Your task to perform on an android device: Turn off the flashlight Image 0: 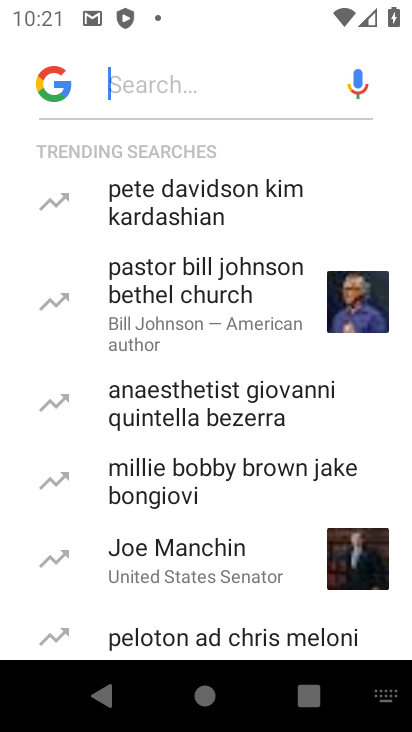
Step 0: press back button
Your task to perform on an android device: Turn off the flashlight Image 1: 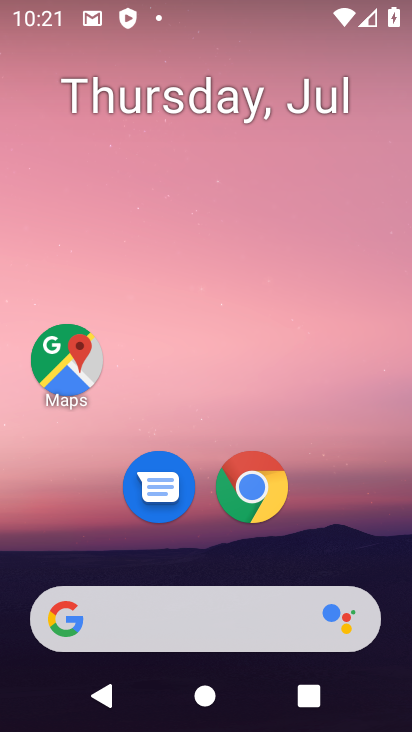
Step 1: drag from (221, 580) to (322, 16)
Your task to perform on an android device: Turn off the flashlight Image 2: 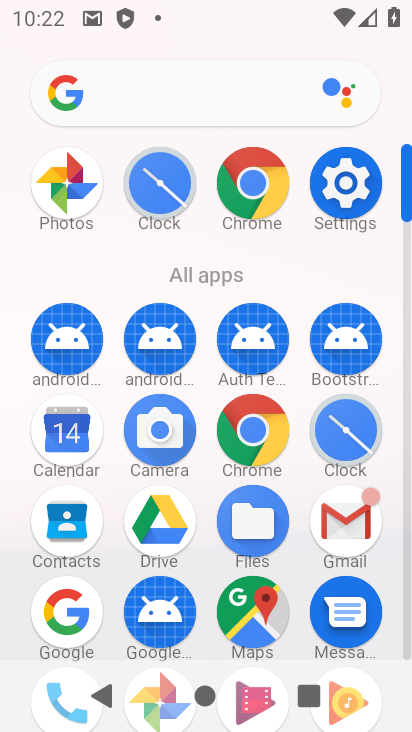
Step 2: click (351, 195)
Your task to perform on an android device: Turn off the flashlight Image 3: 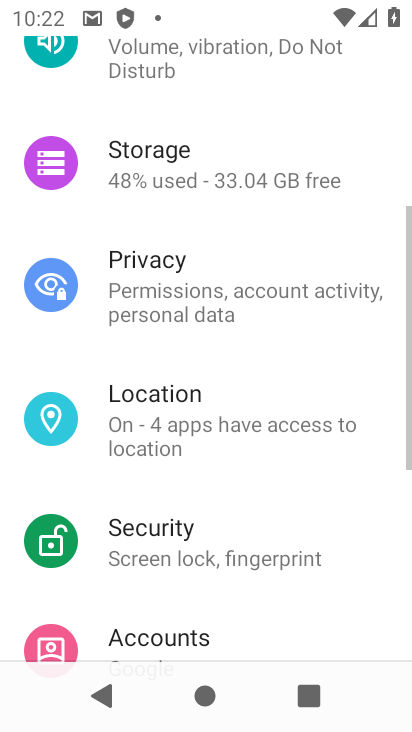
Step 3: drag from (234, 205) to (214, 689)
Your task to perform on an android device: Turn off the flashlight Image 4: 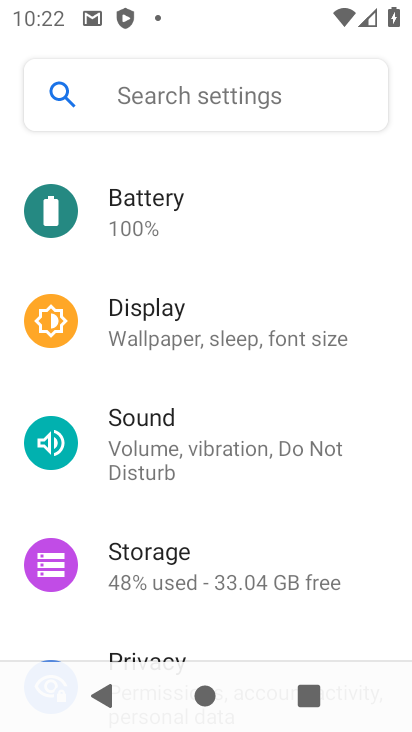
Step 4: click (143, 97)
Your task to perform on an android device: Turn off the flashlight Image 5: 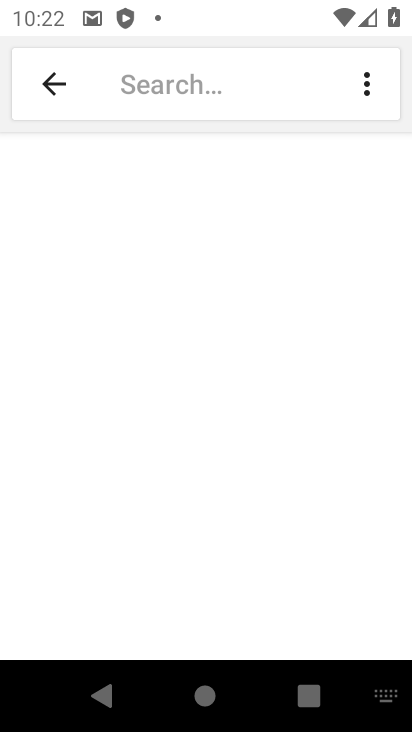
Step 5: click (171, 94)
Your task to perform on an android device: Turn off the flashlight Image 6: 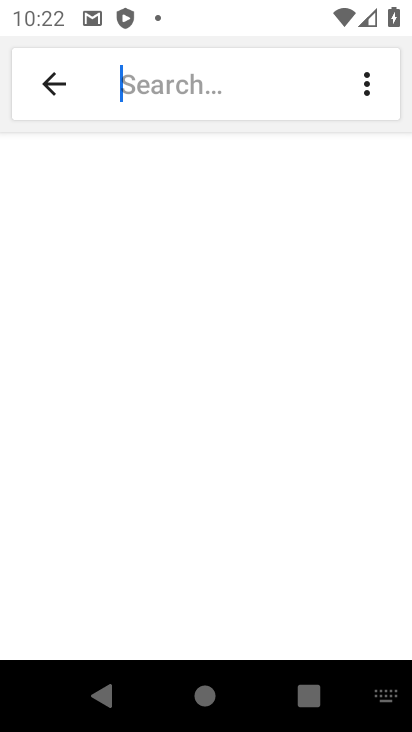
Step 6: type "flashlight"
Your task to perform on an android device: Turn off the flashlight Image 7: 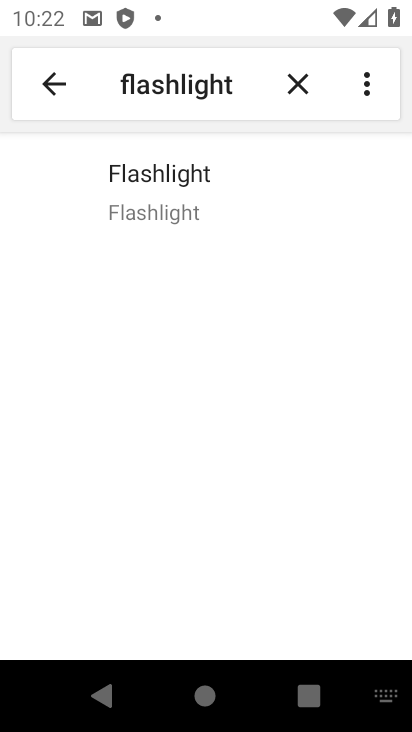
Step 7: click (193, 199)
Your task to perform on an android device: Turn off the flashlight Image 8: 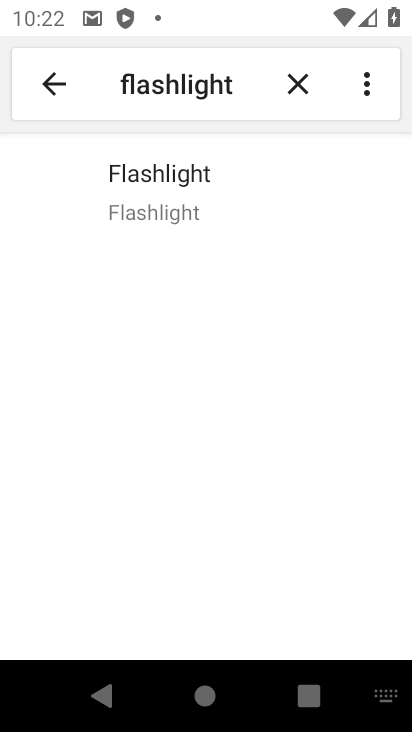
Step 8: click (195, 203)
Your task to perform on an android device: Turn off the flashlight Image 9: 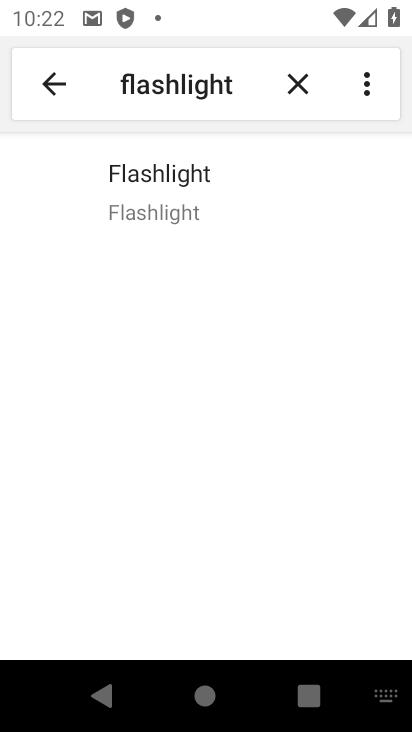
Step 9: task complete